Your task to perform on an android device: Show me recent news Image 0: 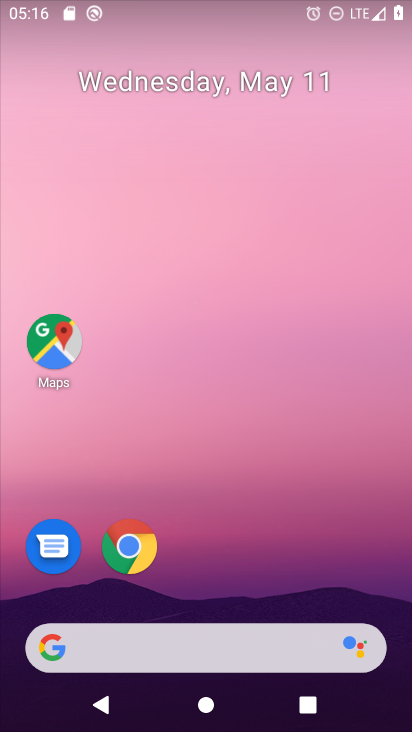
Step 0: drag from (280, 620) to (239, 22)
Your task to perform on an android device: Show me recent news Image 1: 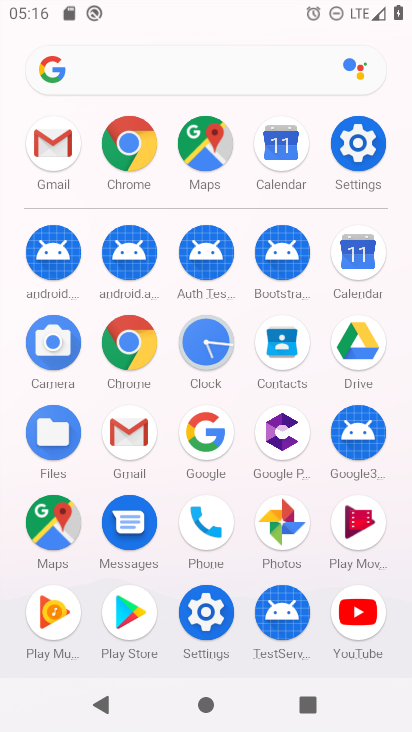
Step 1: click (131, 353)
Your task to perform on an android device: Show me recent news Image 2: 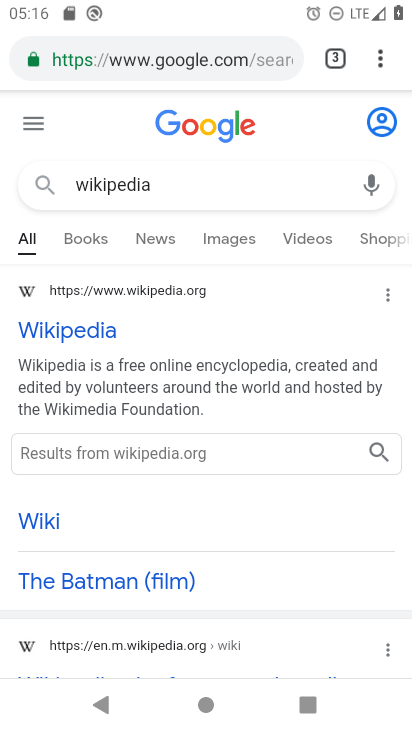
Step 2: click (217, 51)
Your task to perform on an android device: Show me recent news Image 3: 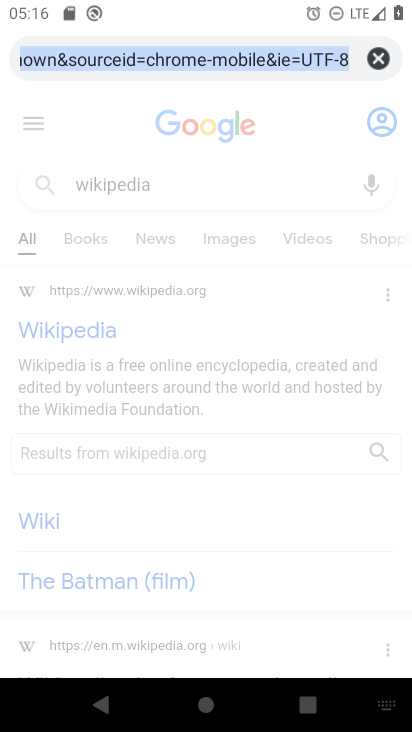
Step 3: click (378, 54)
Your task to perform on an android device: Show me recent news Image 4: 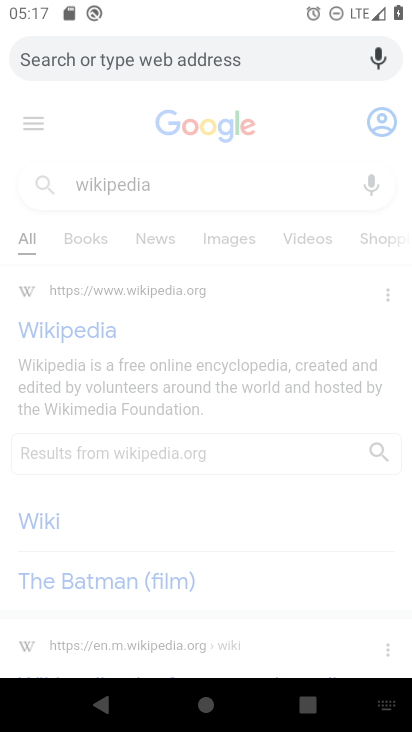
Step 4: type "recent news"
Your task to perform on an android device: Show me recent news Image 5: 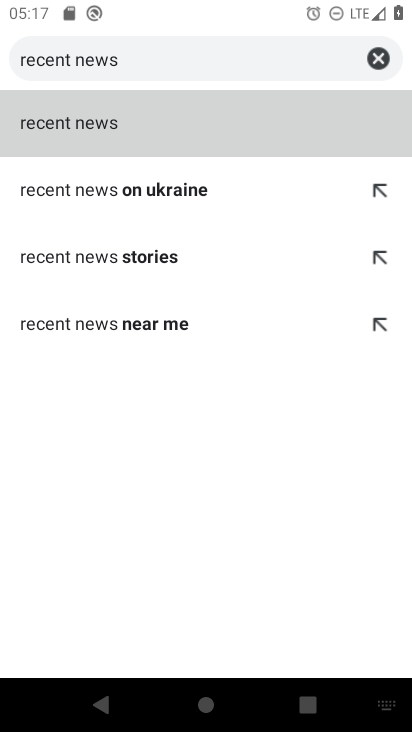
Step 5: click (212, 106)
Your task to perform on an android device: Show me recent news Image 6: 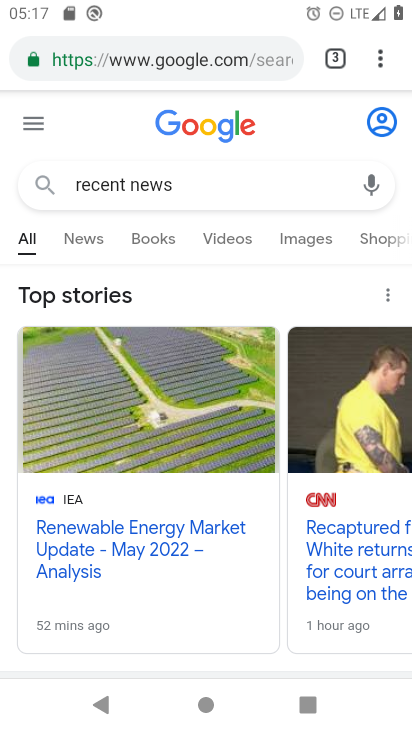
Step 6: task complete